Your task to perform on an android device: delete a single message in the gmail app Image 0: 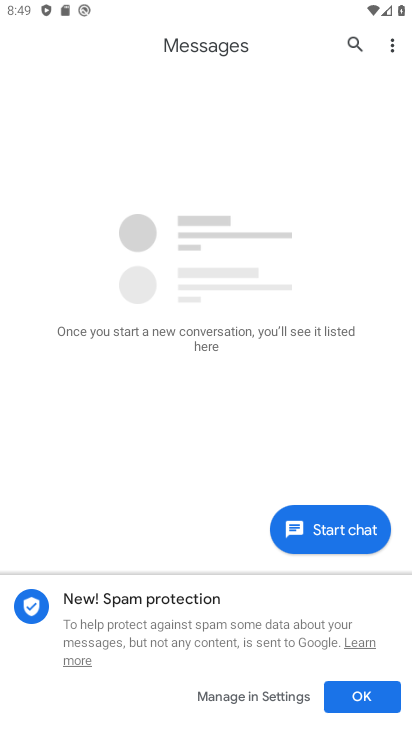
Step 0: press home button
Your task to perform on an android device: delete a single message in the gmail app Image 1: 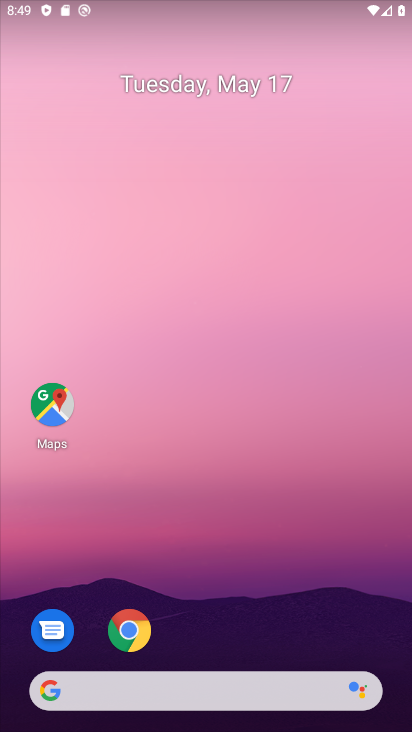
Step 1: drag from (360, 616) to (351, 120)
Your task to perform on an android device: delete a single message in the gmail app Image 2: 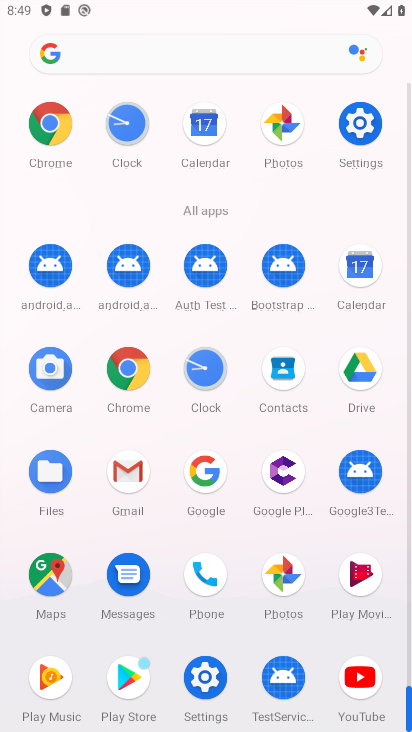
Step 2: click (122, 473)
Your task to perform on an android device: delete a single message in the gmail app Image 3: 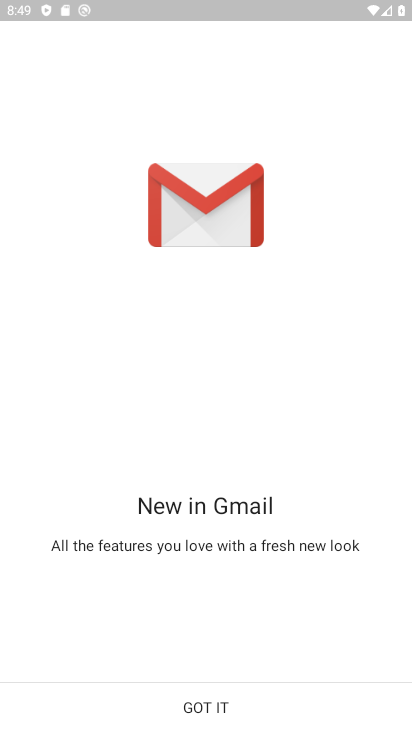
Step 3: click (224, 706)
Your task to perform on an android device: delete a single message in the gmail app Image 4: 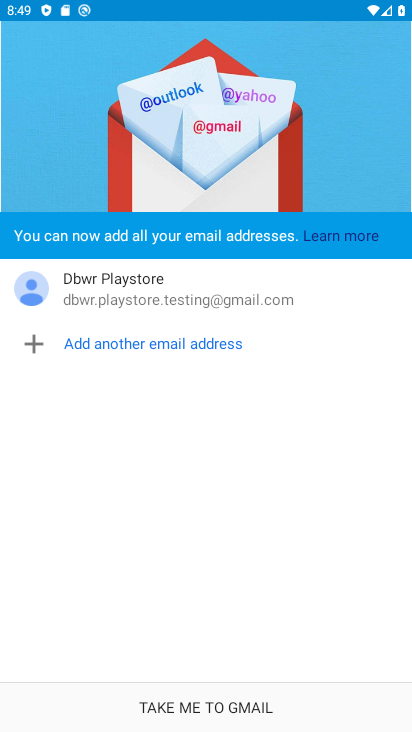
Step 4: click (224, 706)
Your task to perform on an android device: delete a single message in the gmail app Image 5: 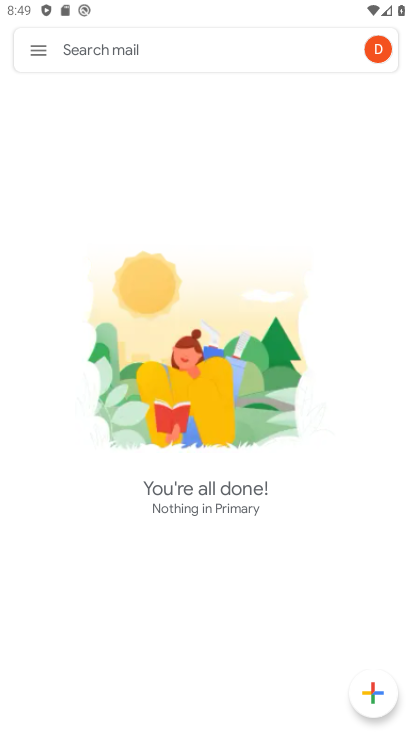
Step 5: click (37, 40)
Your task to perform on an android device: delete a single message in the gmail app Image 6: 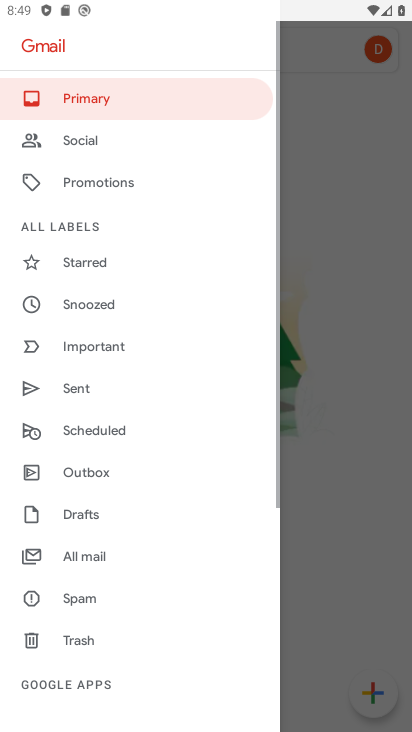
Step 6: drag from (175, 577) to (190, 428)
Your task to perform on an android device: delete a single message in the gmail app Image 7: 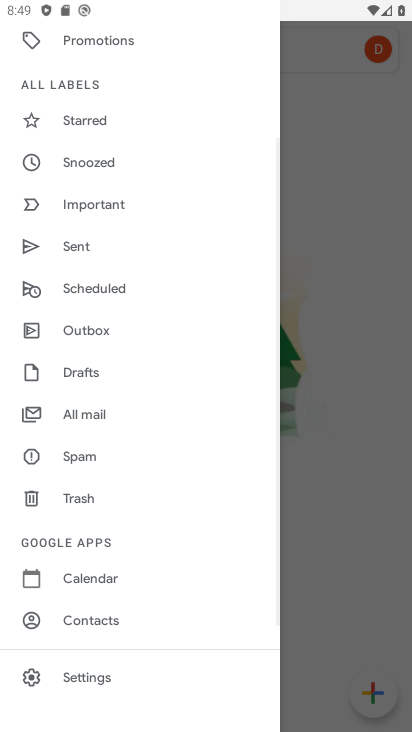
Step 7: drag from (188, 600) to (187, 453)
Your task to perform on an android device: delete a single message in the gmail app Image 8: 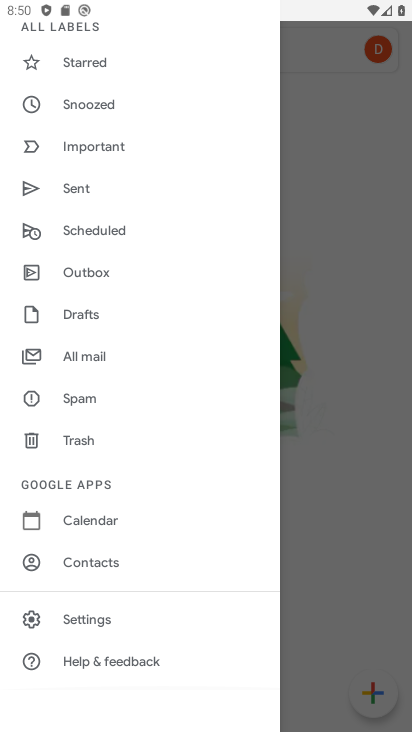
Step 8: drag from (186, 290) to (188, 455)
Your task to perform on an android device: delete a single message in the gmail app Image 9: 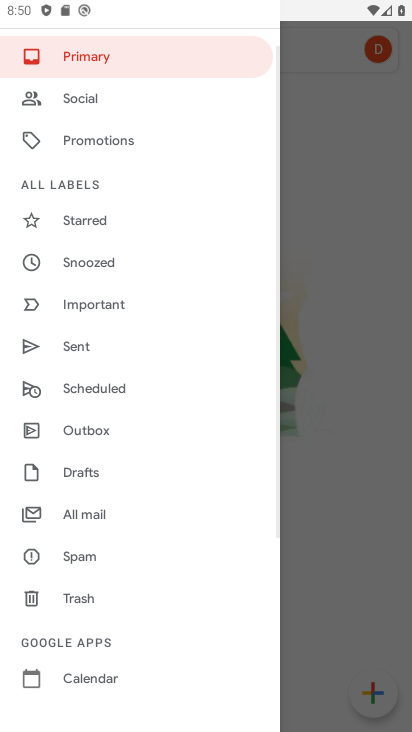
Step 9: drag from (197, 234) to (196, 403)
Your task to perform on an android device: delete a single message in the gmail app Image 10: 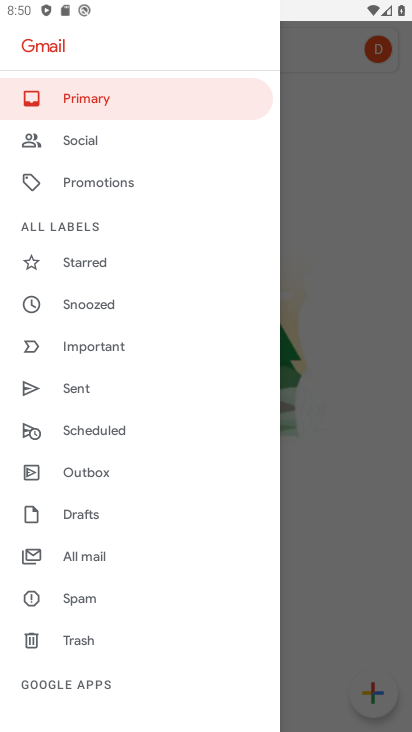
Step 10: click (134, 85)
Your task to perform on an android device: delete a single message in the gmail app Image 11: 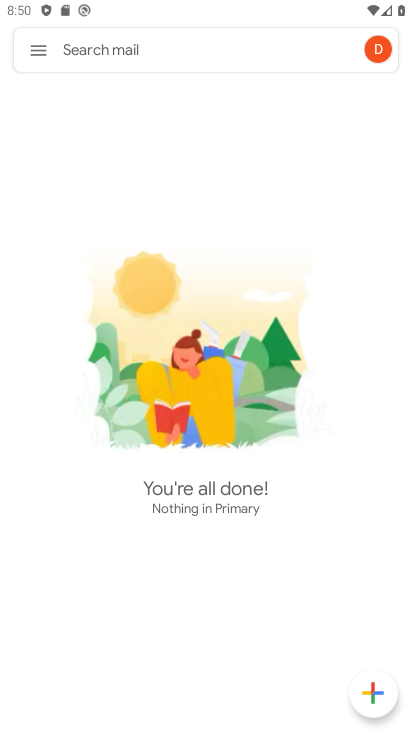
Step 11: task complete